Your task to perform on an android device: Go to privacy settings Image 0: 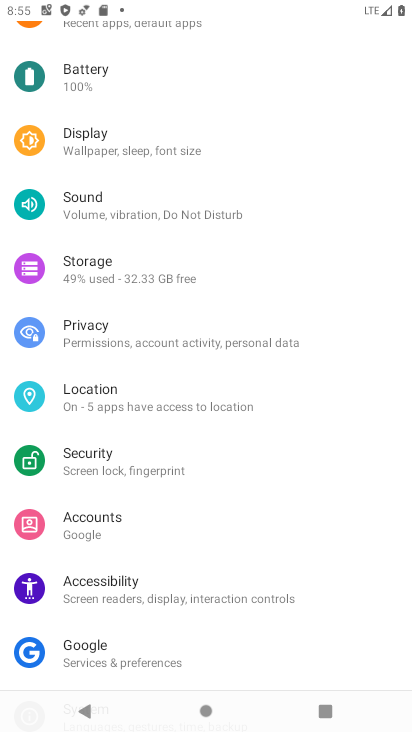
Step 0: press home button
Your task to perform on an android device: Go to privacy settings Image 1: 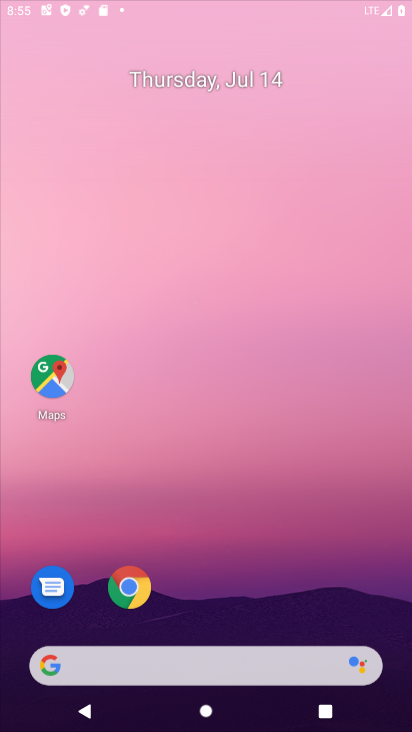
Step 1: drag from (369, 687) to (396, 309)
Your task to perform on an android device: Go to privacy settings Image 2: 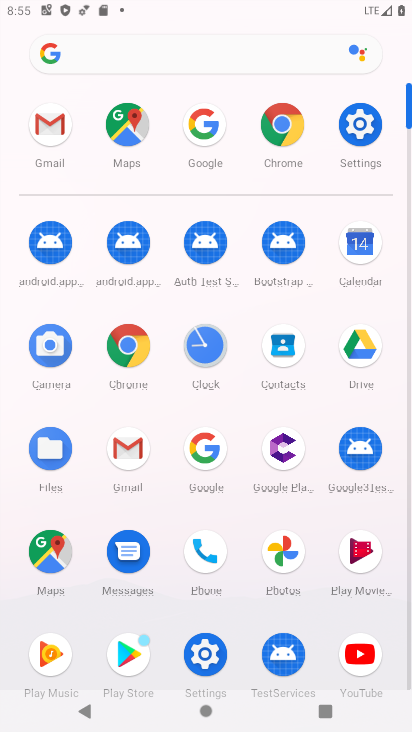
Step 2: click (216, 646)
Your task to perform on an android device: Go to privacy settings Image 3: 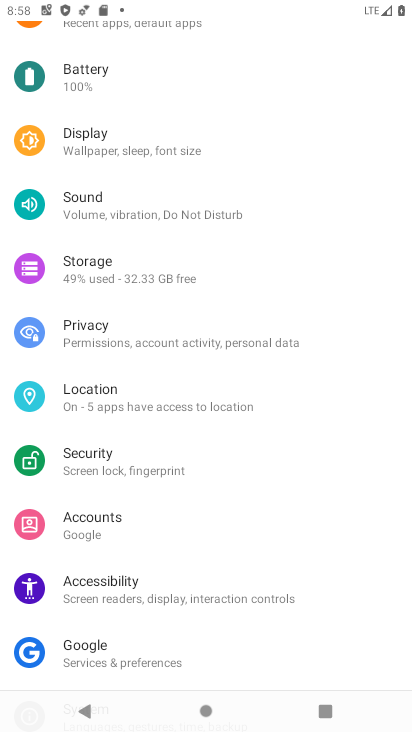
Step 3: click (95, 327)
Your task to perform on an android device: Go to privacy settings Image 4: 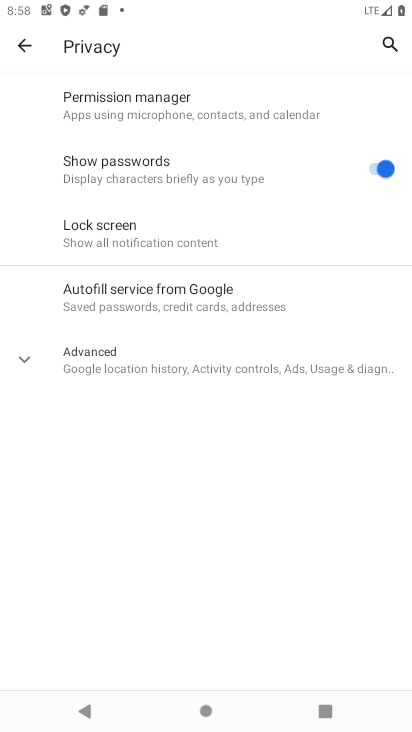
Step 4: task complete